Your task to perform on an android device: Turn off the flashlight Image 0: 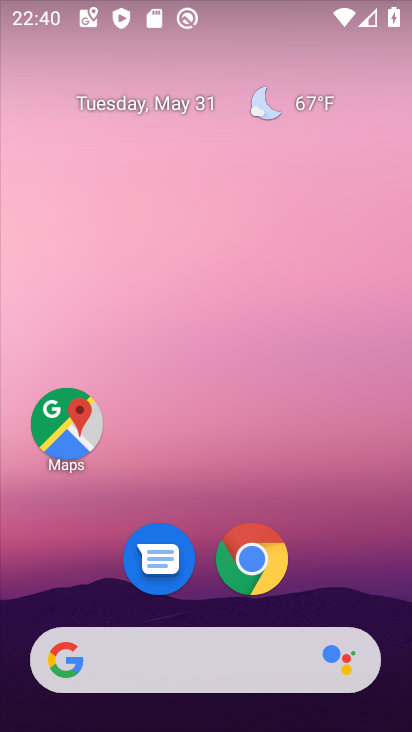
Step 0: drag from (323, 549) to (316, 79)
Your task to perform on an android device: Turn off the flashlight Image 1: 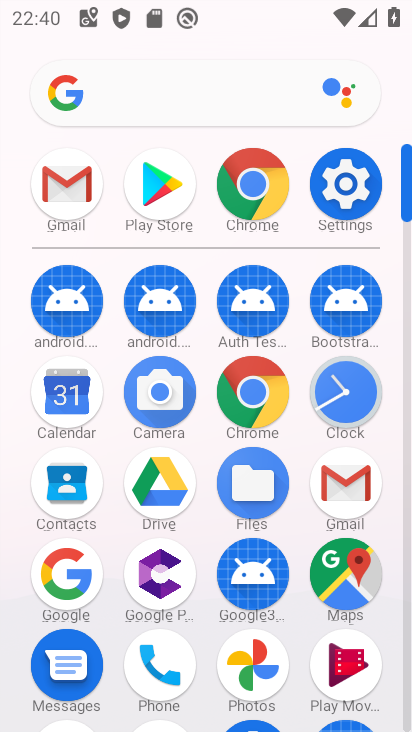
Step 1: click (346, 187)
Your task to perform on an android device: Turn off the flashlight Image 2: 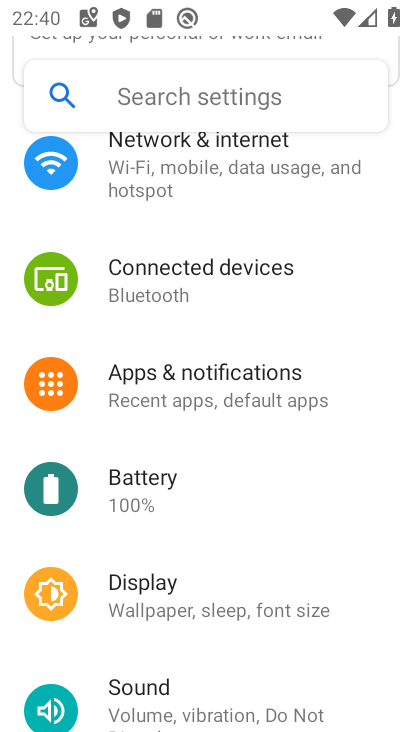
Step 2: click (189, 102)
Your task to perform on an android device: Turn off the flashlight Image 3: 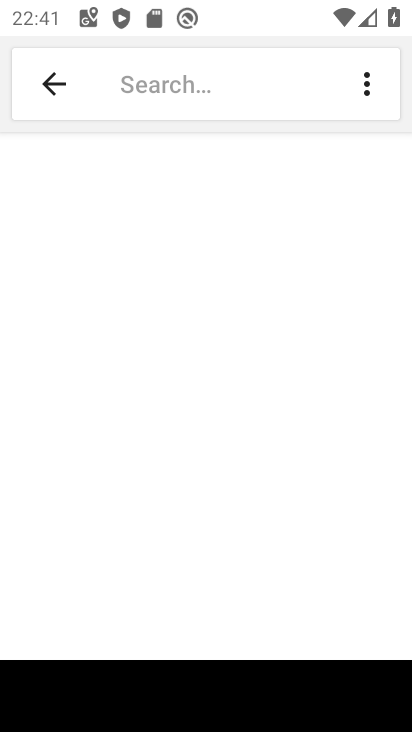
Step 3: type "flash"
Your task to perform on an android device: Turn off the flashlight Image 4: 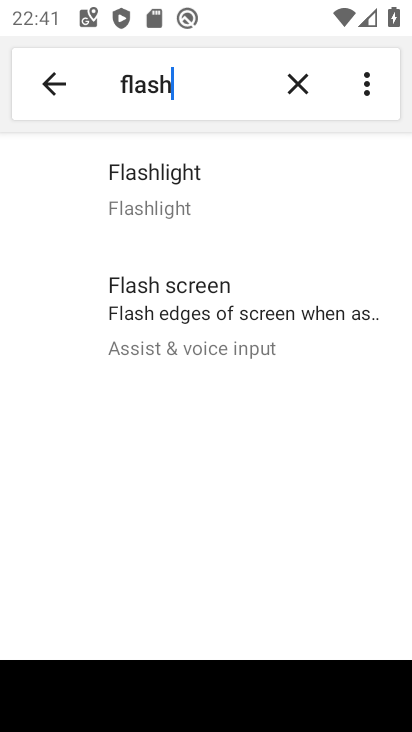
Step 4: task complete